Your task to perform on an android device: turn on translation in the chrome app Image 0: 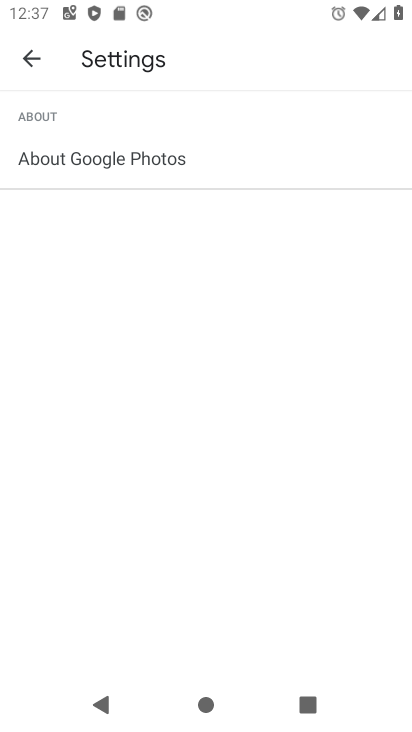
Step 0: click (45, 57)
Your task to perform on an android device: turn on translation in the chrome app Image 1: 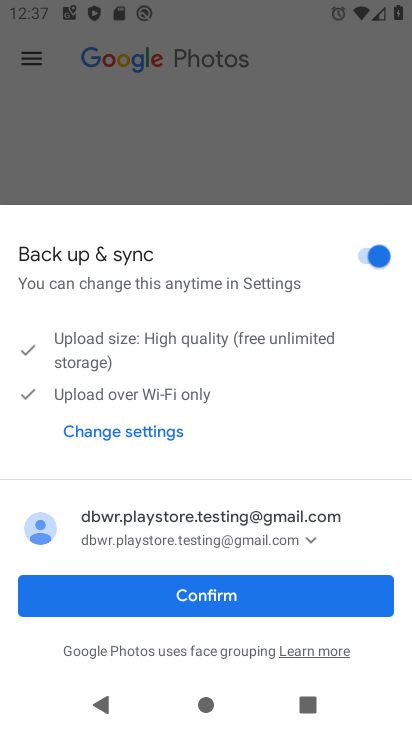
Step 1: click (278, 584)
Your task to perform on an android device: turn on translation in the chrome app Image 2: 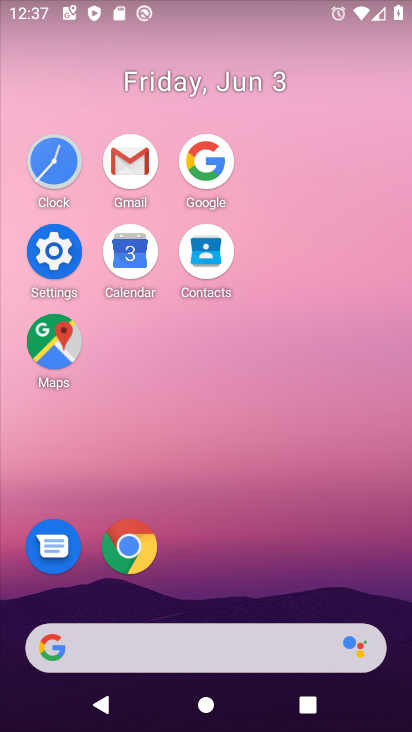
Step 2: click (127, 536)
Your task to perform on an android device: turn on translation in the chrome app Image 3: 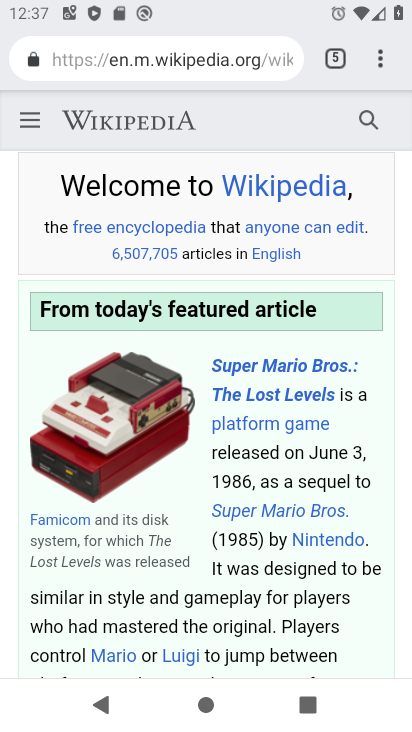
Step 3: click (380, 59)
Your task to perform on an android device: turn on translation in the chrome app Image 4: 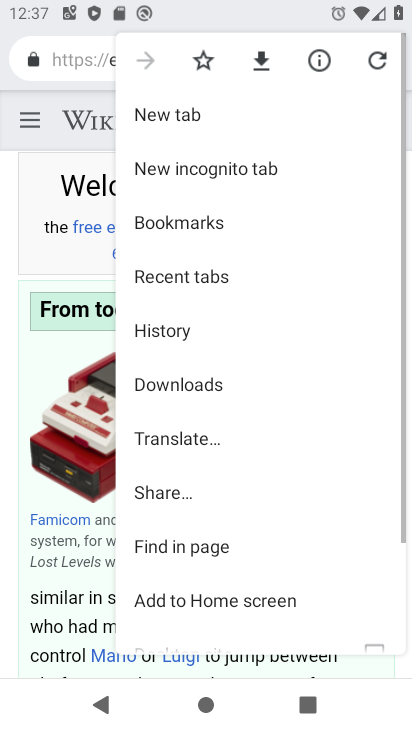
Step 4: drag from (263, 504) to (314, 116)
Your task to perform on an android device: turn on translation in the chrome app Image 5: 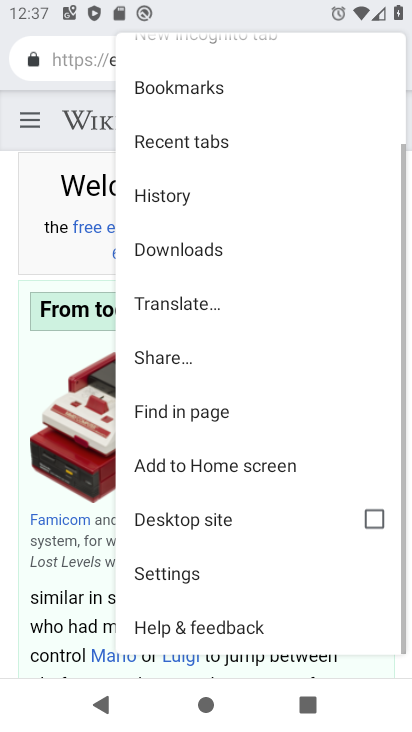
Step 5: click (245, 579)
Your task to perform on an android device: turn on translation in the chrome app Image 6: 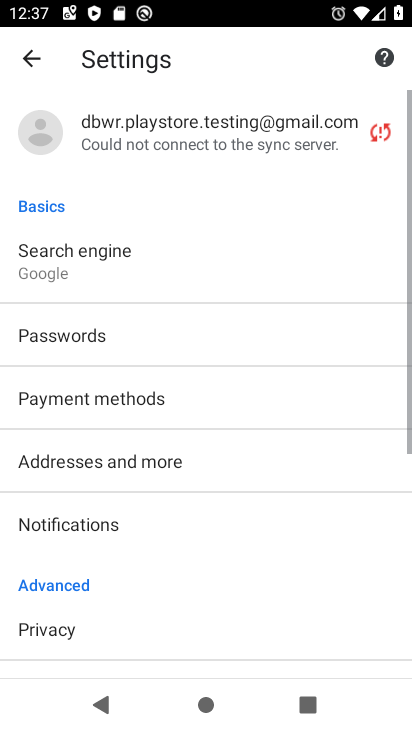
Step 6: drag from (245, 579) to (259, 219)
Your task to perform on an android device: turn on translation in the chrome app Image 7: 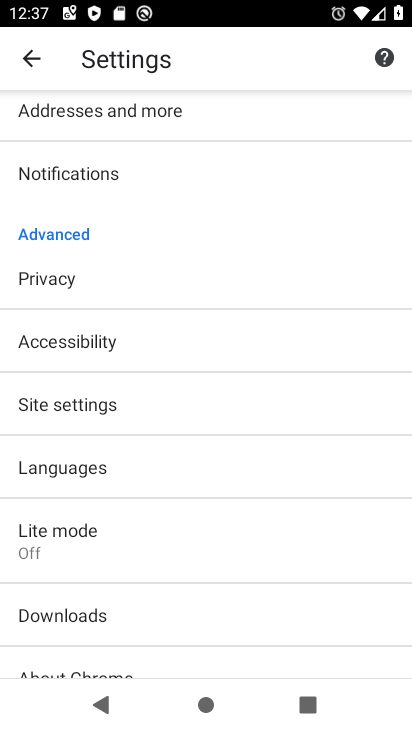
Step 7: drag from (206, 555) to (184, 197)
Your task to perform on an android device: turn on translation in the chrome app Image 8: 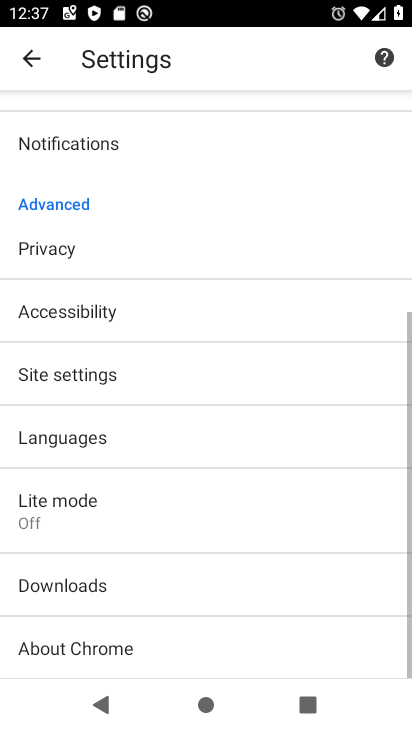
Step 8: click (191, 464)
Your task to perform on an android device: turn on translation in the chrome app Image 9: 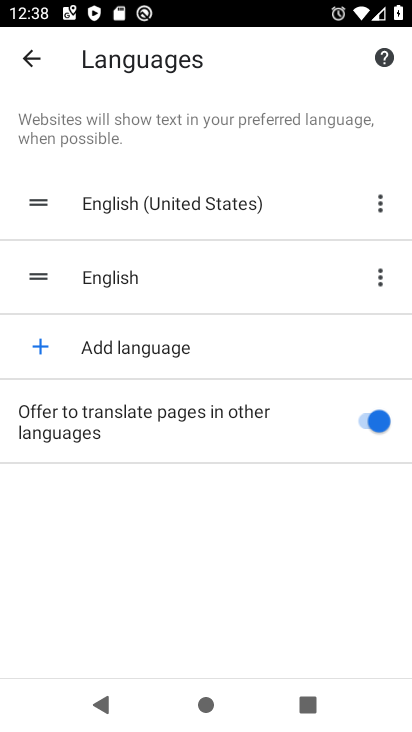
Step 9: task complete